Your task to perform on an android device: star an email in the gmail app Image 0: 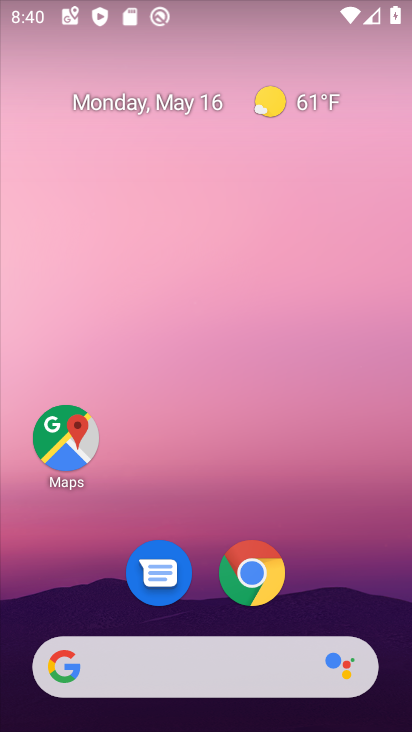
Step 0: drag from (191, 723) to (162, 124)
Your task to perform on an android device: star an email in the gmail app Image 1: 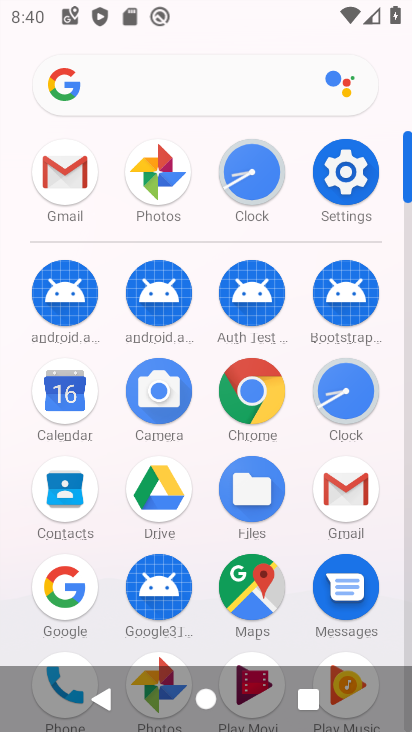
Step 1: click (355, 489)
Your task to perform on an android device: star an email in the gmail app Image 2: 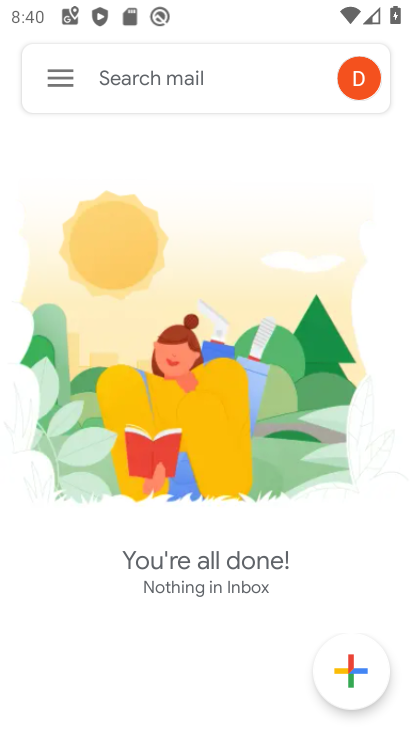
Step 2: task complete